Your task to perform on an android device: What's the weather? Image 0: 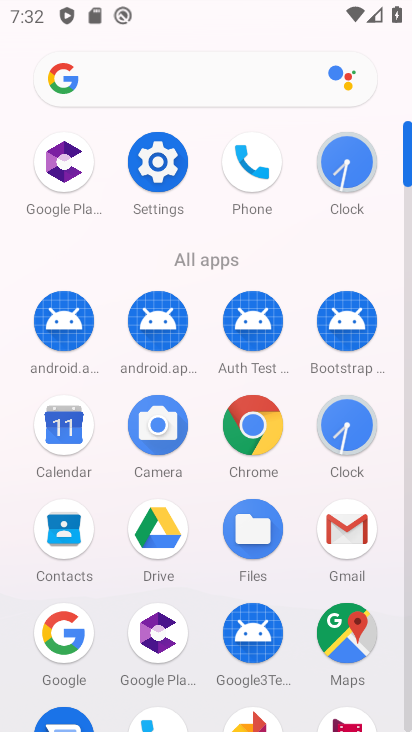
Step 0: press home button
Your task to perform on an android device: What's the weather? Image 1: 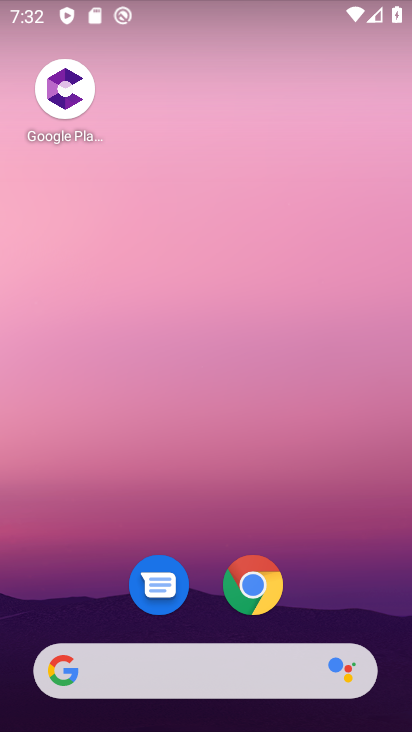
Step 1: drag from (44, 341) to (408, 386)
Your task to perform on an android device: What's the weather? Image 2: 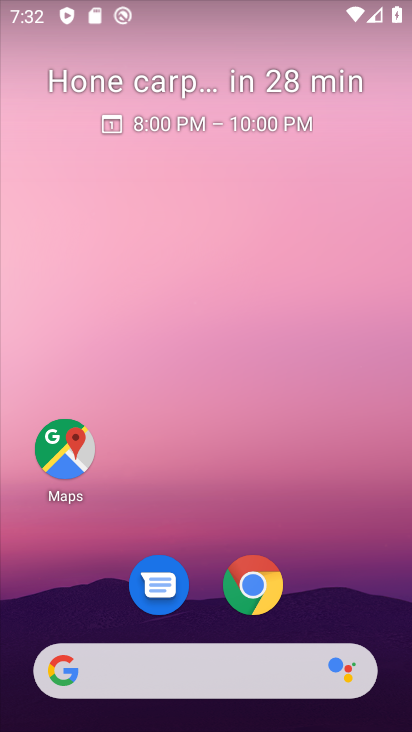
Step 2: drag from (63, 306) to (403, 337)
Your task to perform on an android device: What's the weather? Image 3: 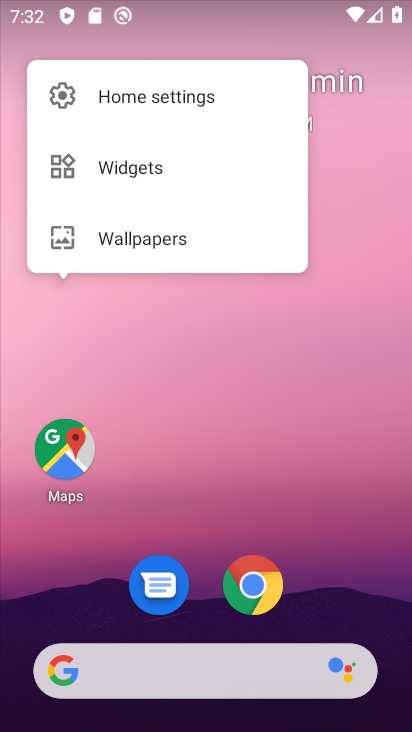
Step 3: drag from (131, 364) to (399, 377)
Your task to perform on an android device: What's the weather? Image 4: 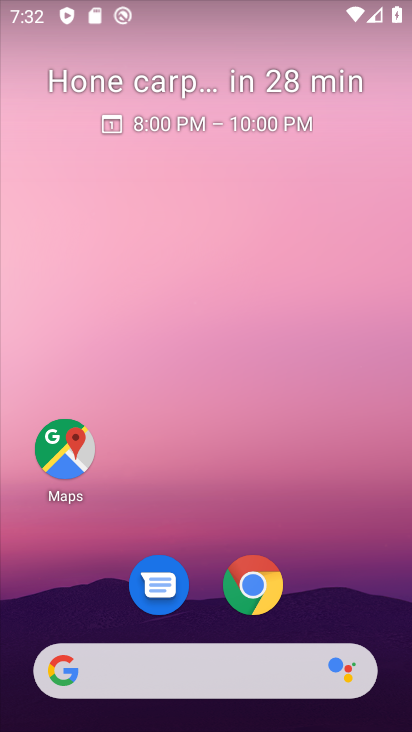
Step 4: drag from (360, 393) to (0, 419)
Your task to perform on an android device: What's the weather? Image 5: 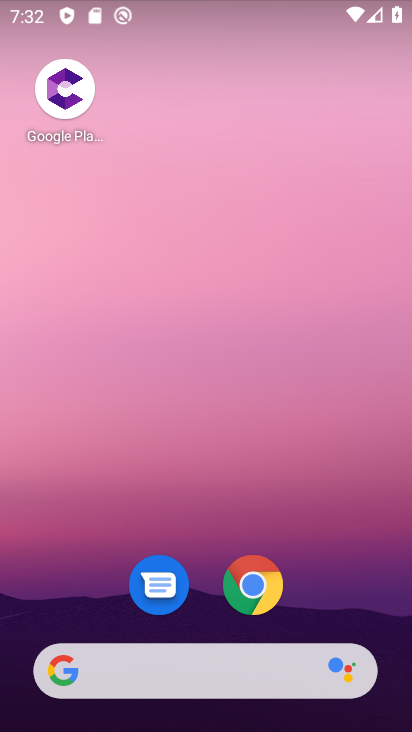
Step 5: drag from (340, 327) to (1, 373)
Your task to perform on an android device: What's the weather? Image 6: 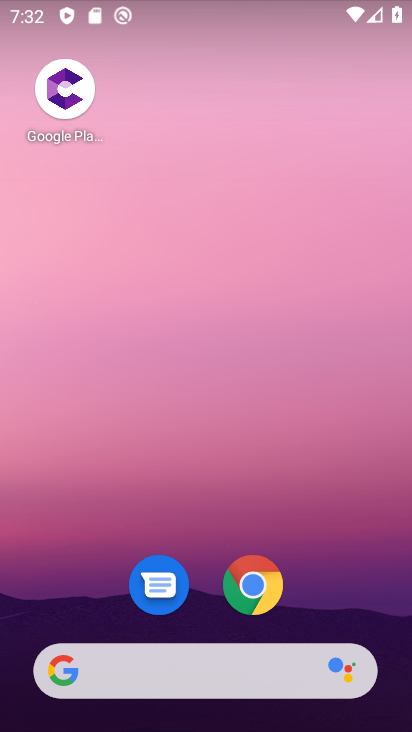
Step 6: drag from (373, 293) to (0, 320)
Your task to perform on an android device: What's the weather? Image 7: 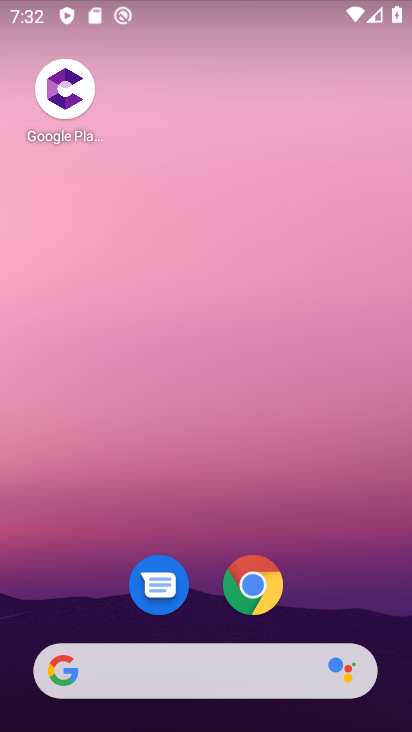
Step 7: click (223, 677)
Your task to perform on an android device: What's the weather? Image 8: 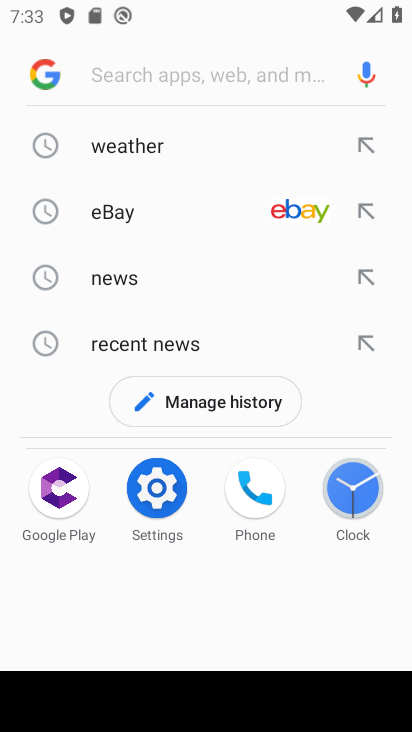
Step 8: click (85, 145)
Your task to perform on an android device: What's the weather? Image 9: 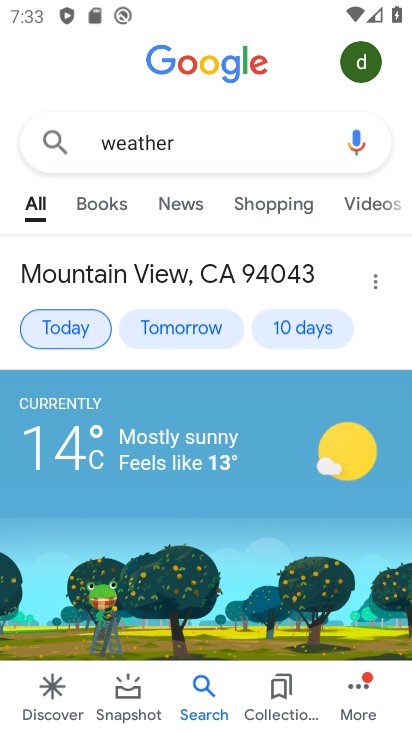
Step 9: task complete